Your task to perform on an android device: show emergency info Image 0: 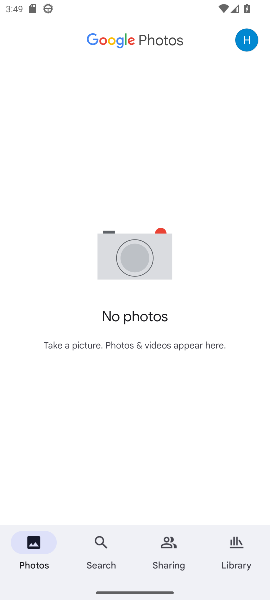
Step 0: press home button
Your task to perform on an android device: show emergency info Image 1: 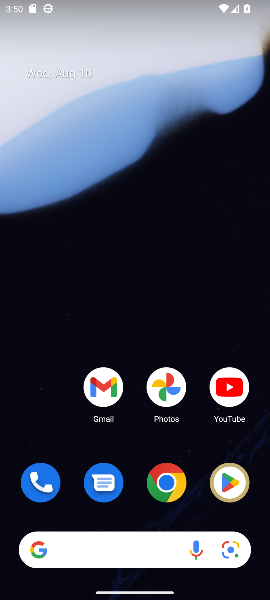
Step 1: drag from (135, 457) to (205, 69)
Your task to perform on an android device: show emergency info Image 2: 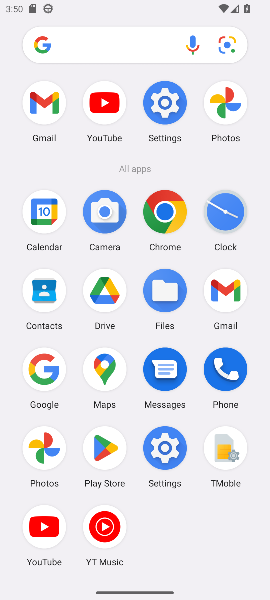
Step 2: click (228, 368)
Your task to perform on an android device: show emergency info Image 3: 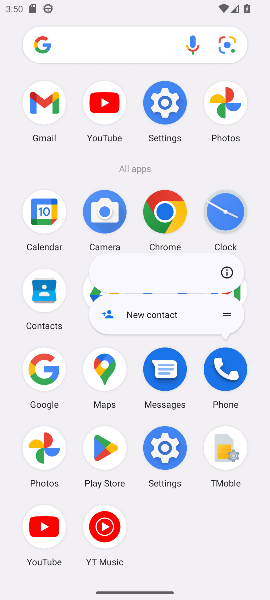
Step 3: click (228, 269)
Your task to perform on an android device: show emergency info Image 4: 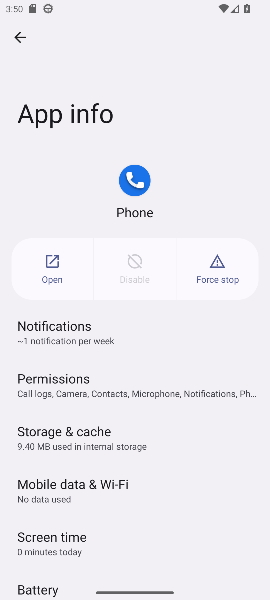
Step 4: task complete